Your task to perform on an android device: change notifications settings Image 0: 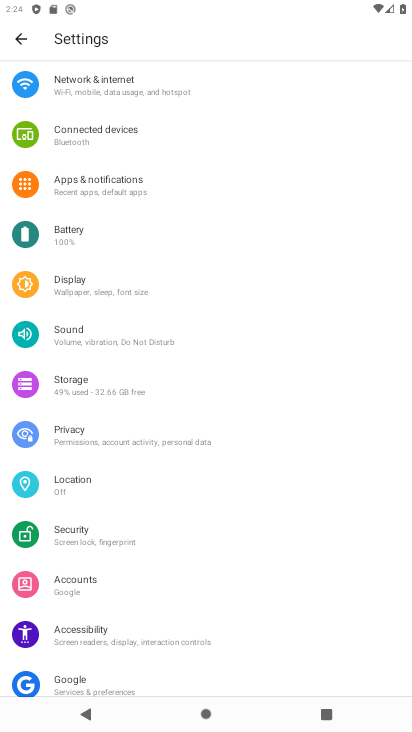
Step 0: click (103, 193)
Your task to perform on an android device: change notifications settings Image 1: 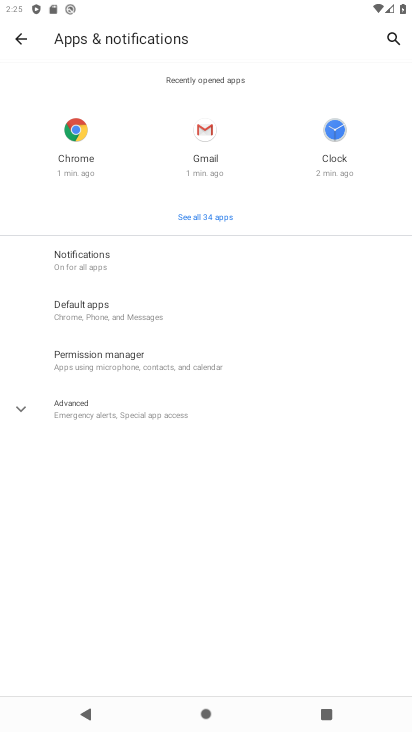
Step 1: click (158, 264)
Your task to perform on an android device: change notifications settings Image 2: 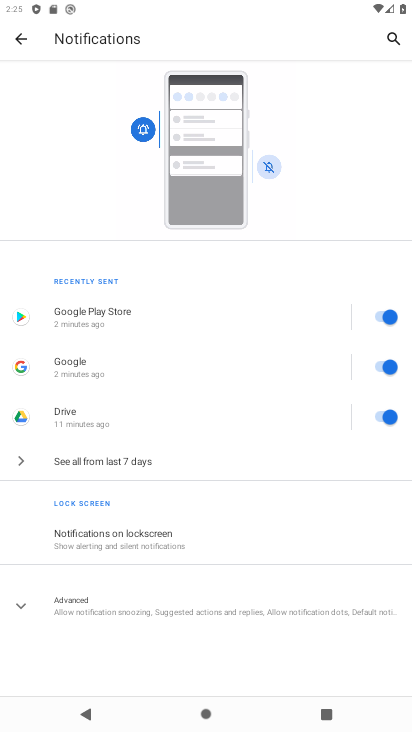
Step 2: click (167, 621)
Your task to perform on an android device: change notifications settings Image 3: 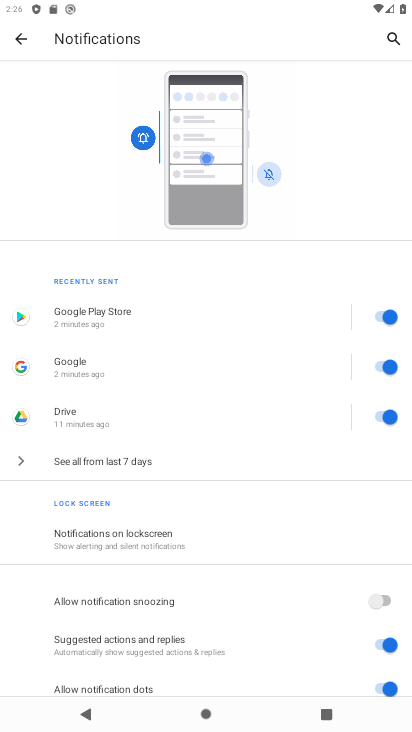
Step 3: click (381, 602)
Your task to perform on an android device: change notifications settings Image 4: 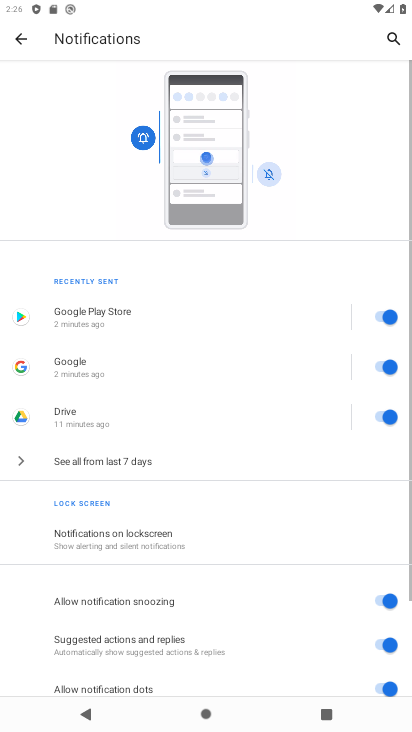
Step 4: click (391, 639)
Your task to perform on an android device: change notifications settings Image 5: 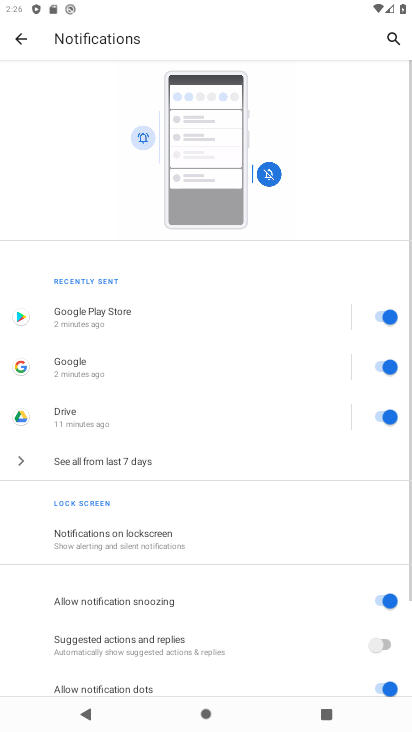
Step 5: click (389, 683)
Your task to perform on an android device: change notifications settings Image 6: 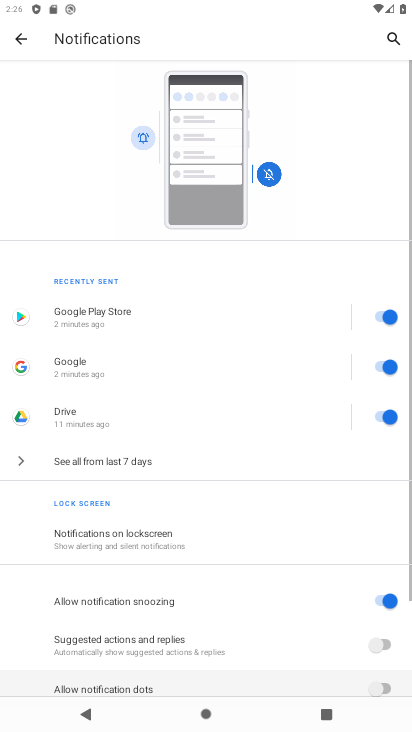
Step 6: task complete